Your task to perform on an android device: Open Google Maps and go to "Timeline" Image 0: 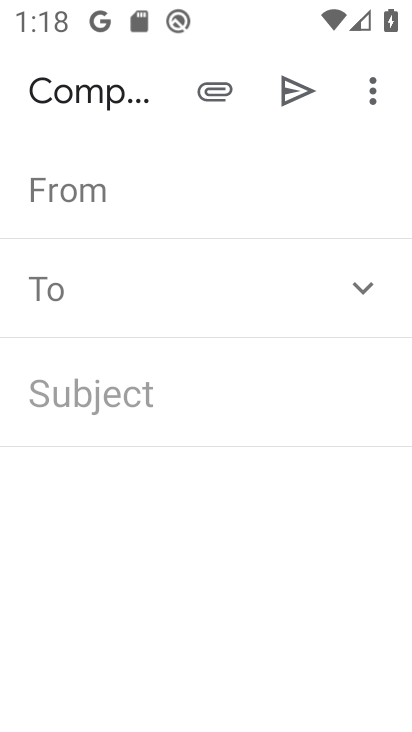
Step 0: drag from (4, 289) to (400, 320)
Your task to perform on an android device: Open Google Maps and go to "Timeline" Image 1: 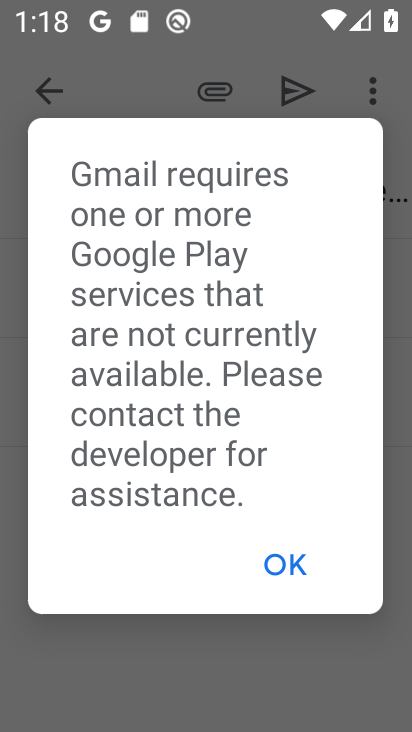
Step 1: press home button
Your task to perform on an android device: Open Google Maps and go to "Timeline" Image 2: 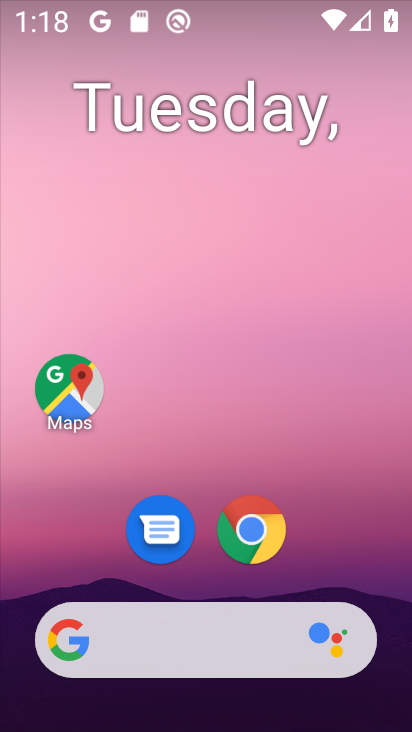
Step 2: drag from (0, 259) to (359, 261)
Your task to perform on an android device: Open Google Maps and go to "Timeline" Image 3: 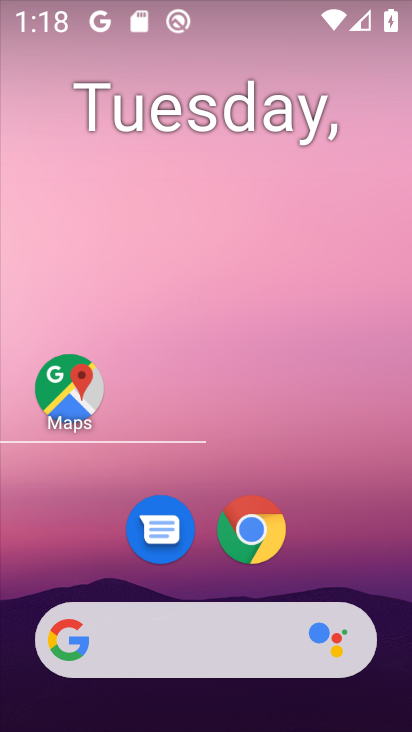
Step 3: drag from (349, 264) to (407, 254)
Your task to perform on an android device: Open Google Maps and go to "Timeline" Image 4: 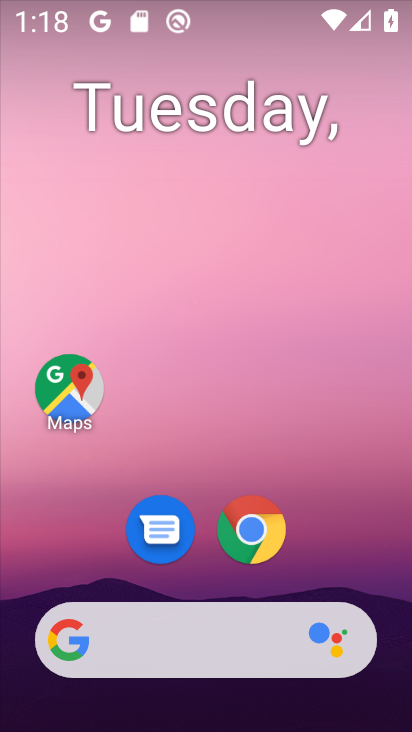
Step 4: drag from (35, 272) to (370, 451)
Your task to perform on an android device: Open Google Maps and go to "Timeline" Image 5: 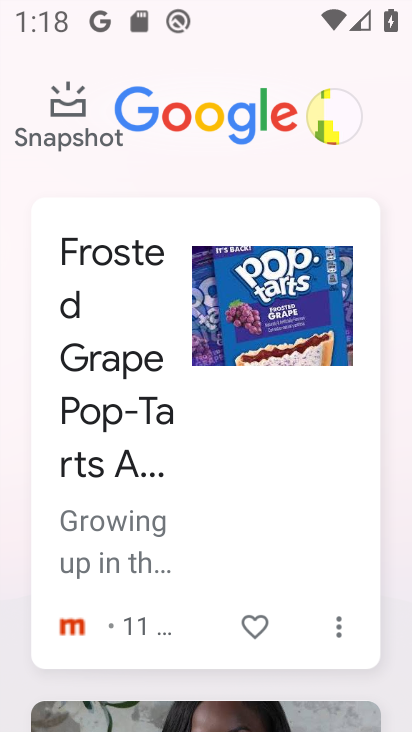
Step 5: press back button
Your task to perform on an android device: Open Google Maps and go to "Timeline" Image 6: 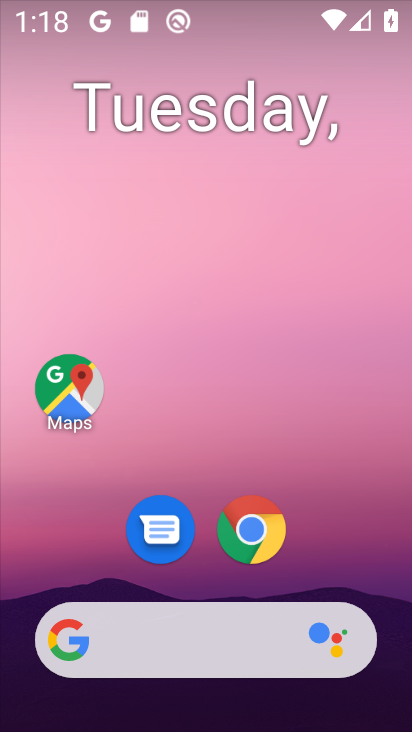
Step 6: drag from (359, 315) to (359, 17)
Your task to perform on an android device: Open Google Maps and go to "Timeline" Image 7: 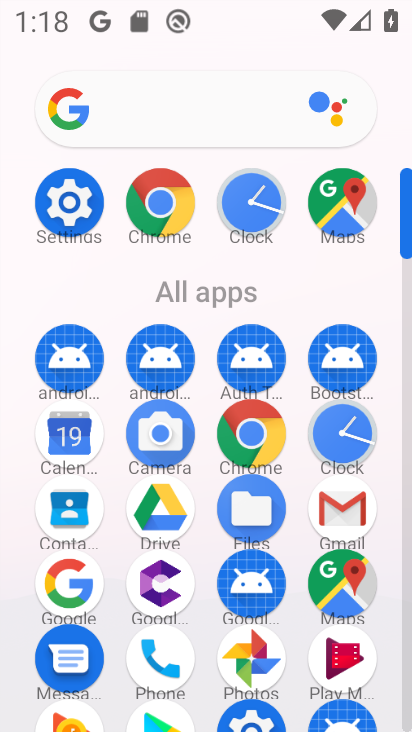
Step 7: drag from (302, 554) to (318, 271)
Your task to perform on an android device: Open Google Maps and go to "Timeline" Image 8: 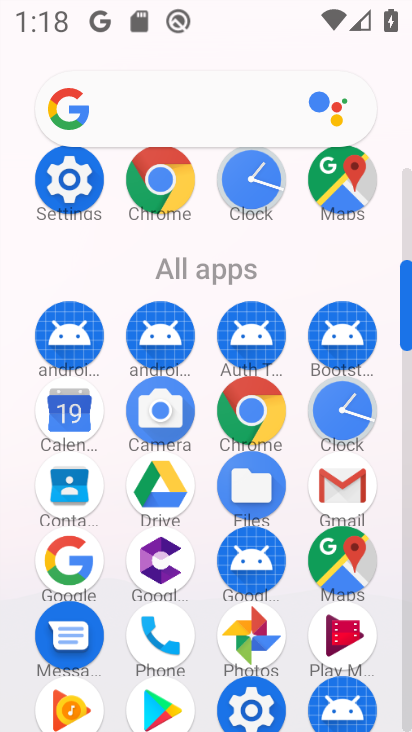
Step 8: drag from (290, 649) to (299, 365)
Your task to perform on an android device: Open Google Maps and go to "Timeline" Image 9: 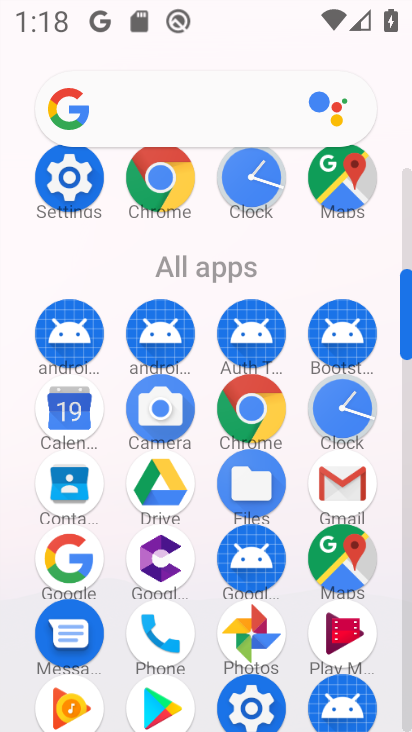
Step 9: drag from (297, 688) to (291, 236)
Your task to perform on an android device: Open Google Maps and go to "Timeline" Image 10: 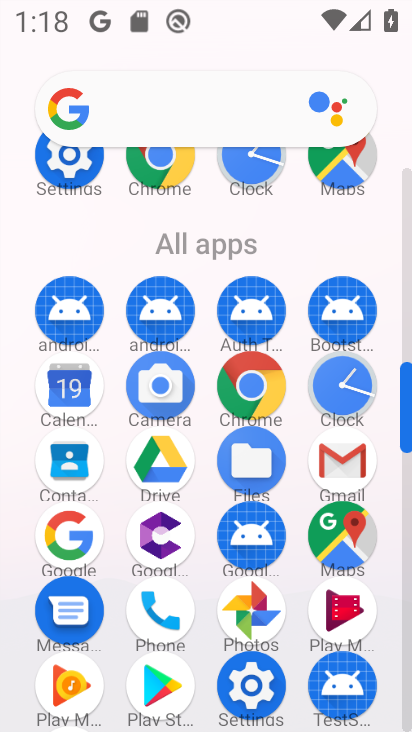
Step 10: drag from (333, 341) to (329, 281)
Your task to perform on an android device: Open Google Maps and go to "Timeline" Image 11: 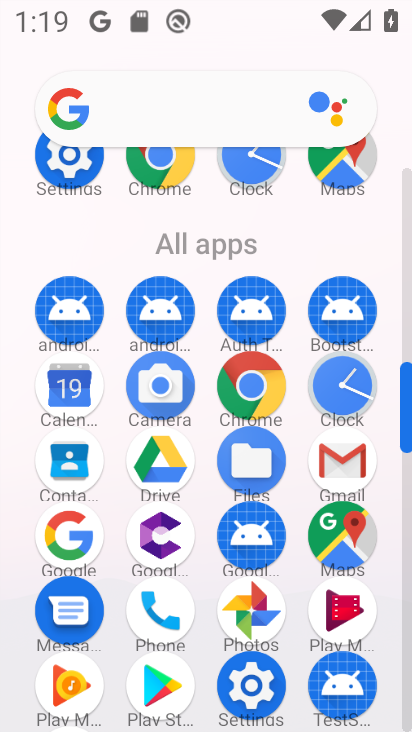
Step 11: drag from (283, 644) to (271, 339)
Your task to perform on an android device: Open Google Maps and go to "Timeline" Image 12: 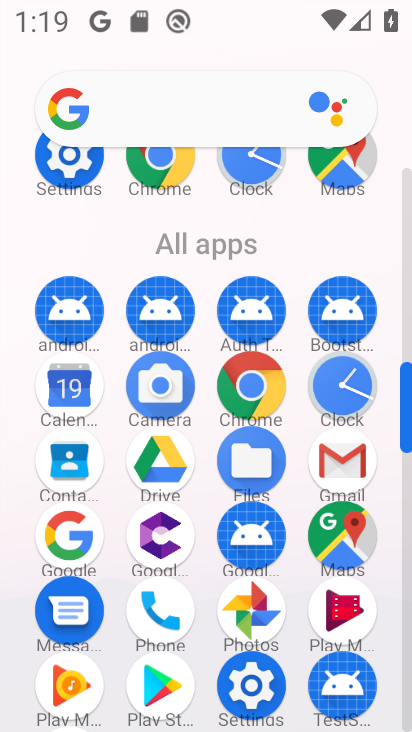
Step 12: drag from (289, 516) to (285, 315)
Your task to perform on an android device: Open Google Maps and go to "Timeline" Image 13: 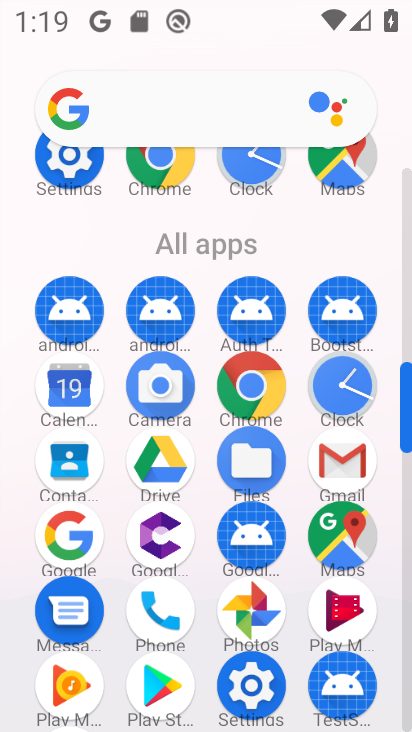
Step 13: drag from (285, 637) to (270, 150)
Your task to perform on an android device: Open Google Maps and go to "Timeline" Image 14: 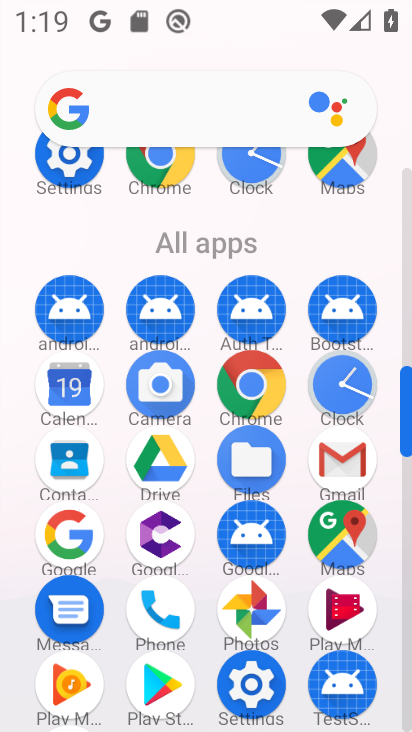
Step 14: drag from (407, 411) to (409, 224)
Your task to perform on an android device: Open Google Maps and go to "Timeline" Image 15: 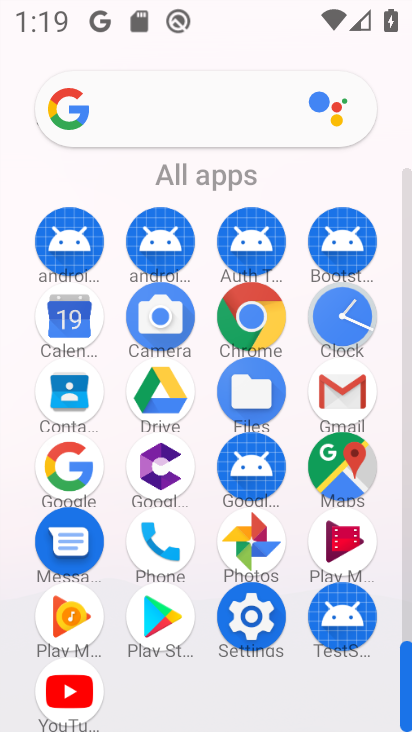
Step 15: click (66, 688)
Your task to perform on an android device: Open Google Maps and go to "Timeline" Image 16: 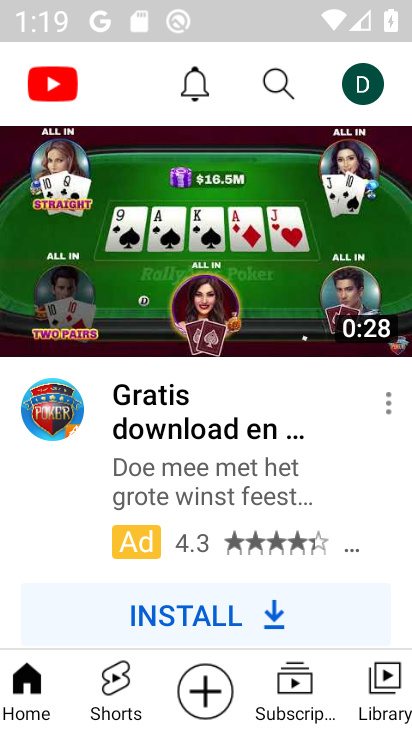
Step 16: click (373, 80)
Your task to perform on an android device: Open Google Maps and go to "Timeline" Image 17: 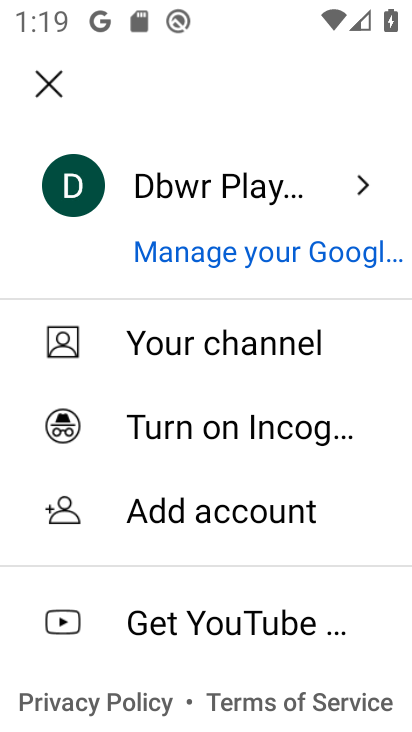
Step 17: drag from (370, 432) to (380, 307)
Your task to perform on an android device: Open Google Maps and go to "Timeline" Image 18: 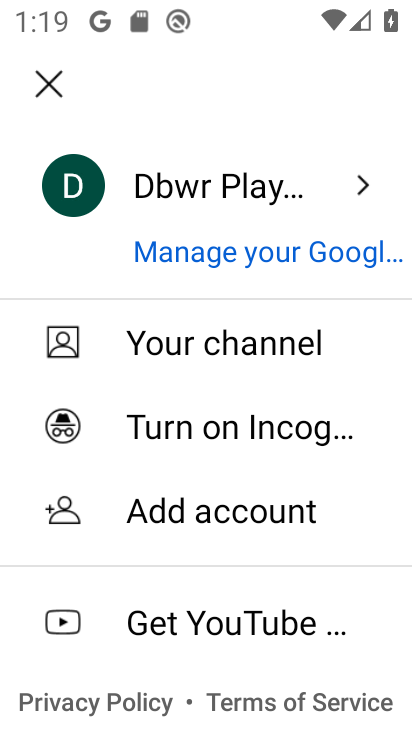
Step 18: drag from (360, 641) to (358, 432)
Your task to perform on an android device: Open Google Maps and go to "Timeline" Image 19: 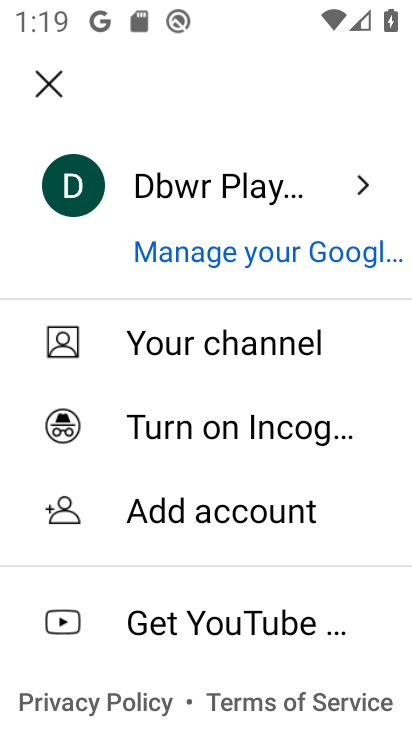
Step 19: drag from (365, 336) to (360, 532)
Your task to perform on an android device: Open Google Maps and go to "Timeline" Image 20: 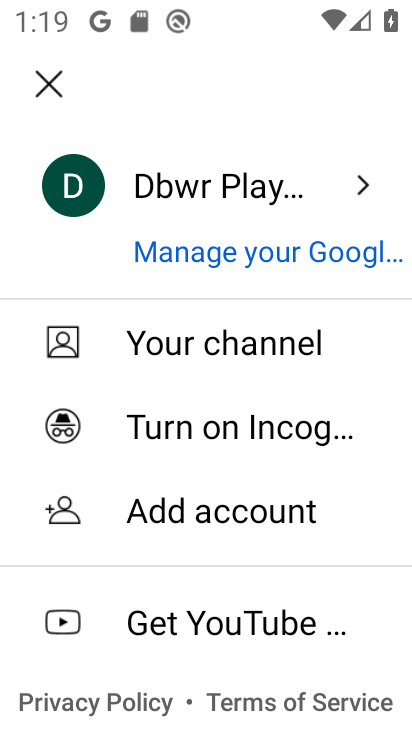
Step 20: click (48, 80)
Your task to perform on an android device: Open Google Maps and go to "Timeline" Image 21: 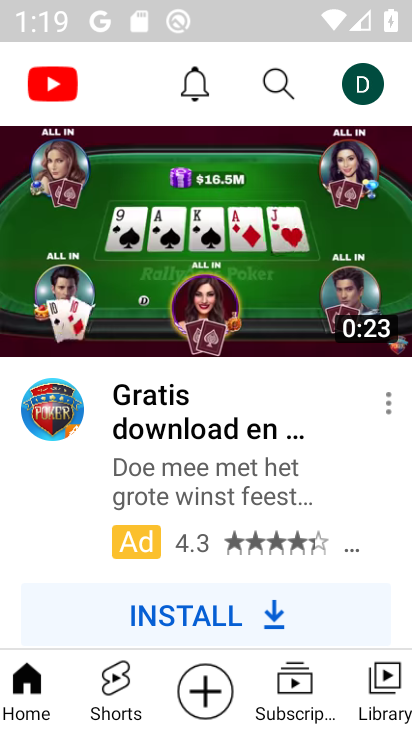
Step 21: click (40, 79)
Your task to perform on an android device: Open Google Maps and go to "Timeline" Image 22: 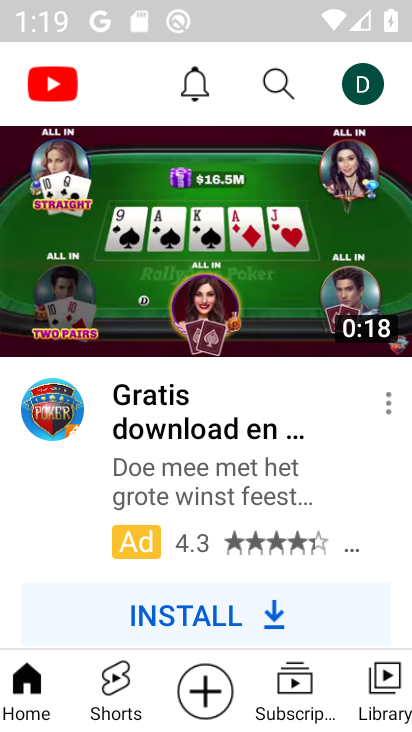
Step 22: press back button
Your task to perform on an android device: Open Google Maps and go to "Timeline" Image 23: 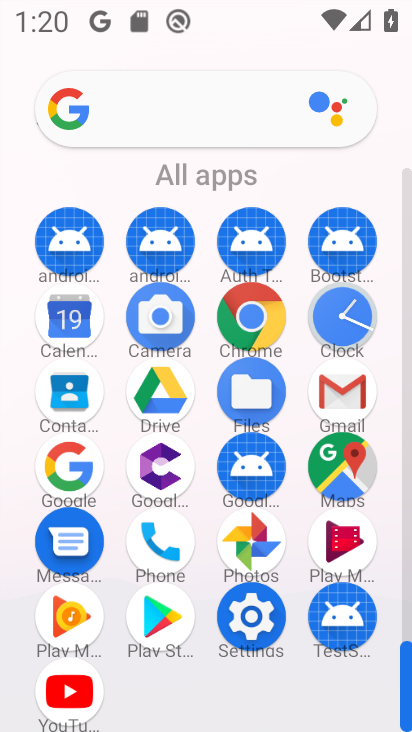
Step 23: click (357, 464)
Your task to perform on an android device: Open Google Maps and go to "Timeline" Image 24: 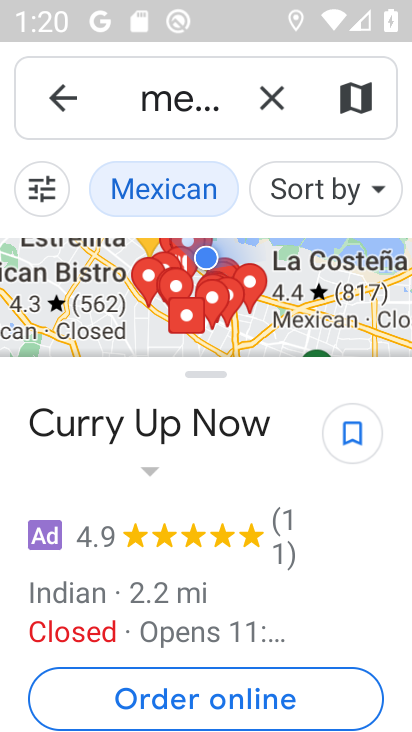
Step 24: click (275, 94)
Your task to perform on an android device: Open Google Maps and go to "Timeline" Image 25: 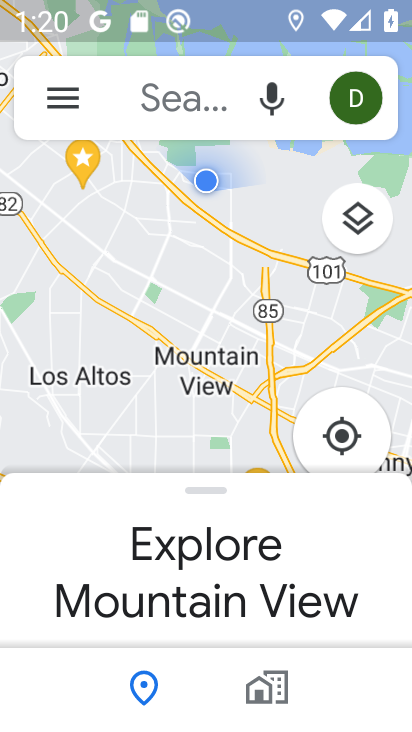
Step 25: click (53, 94)
Your task to perform on an android device: Open Google Maps and go to "Timeline" Image 26: 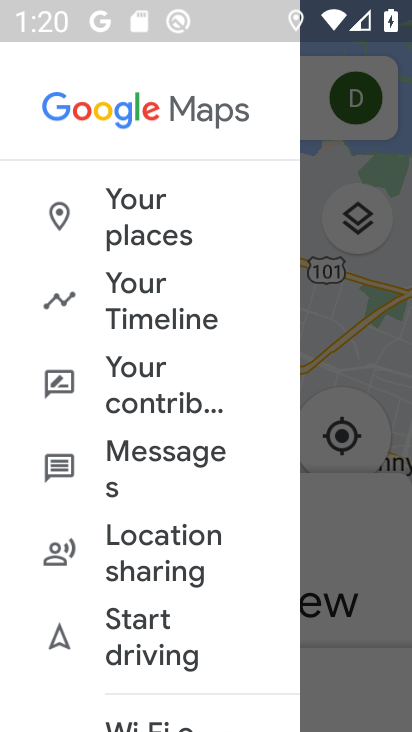
Step 26: drag from (250, 652) to (274, 218)
Your task to perform on an android device: Open Google Maps and go to "Timeline" Image 27: 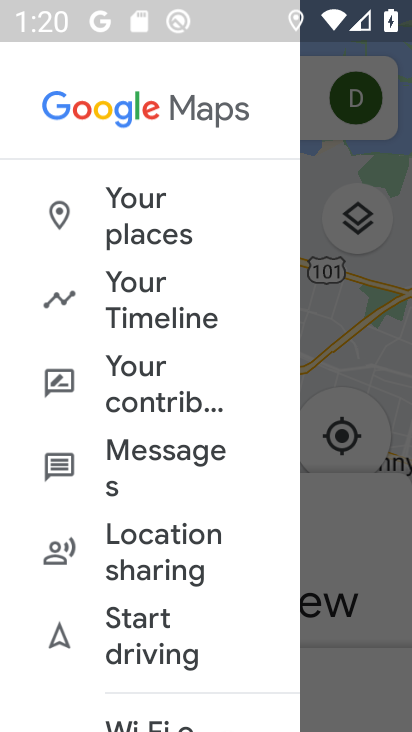
Step 27: click (262, 248)
Your task to perform on an android device: Open Google Maps and go to "Timeline" Image 28: 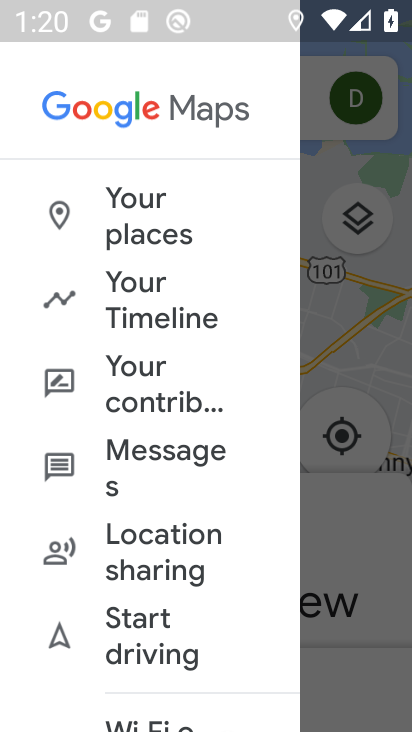
Step 28: drag from (220, 666) to (252, 204)
Your task to perform on an android device: Open Google Maps and go to "Timeline" Image 29: 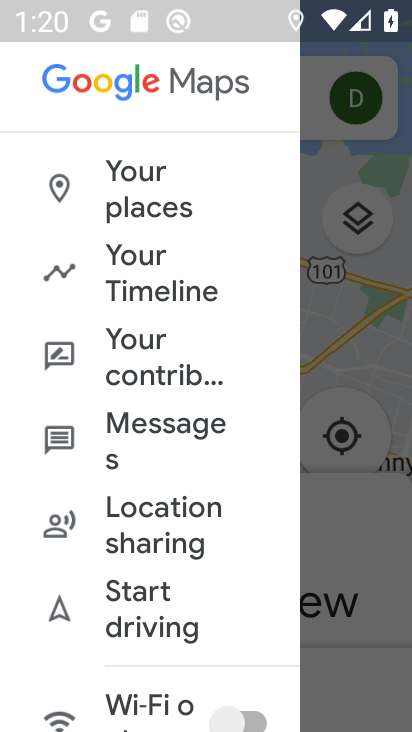
Step 29: drag from (239, 657) to (277, 228)
Your task to perform on an android device: Open Google Maps and go to "Timeline" Image 30: 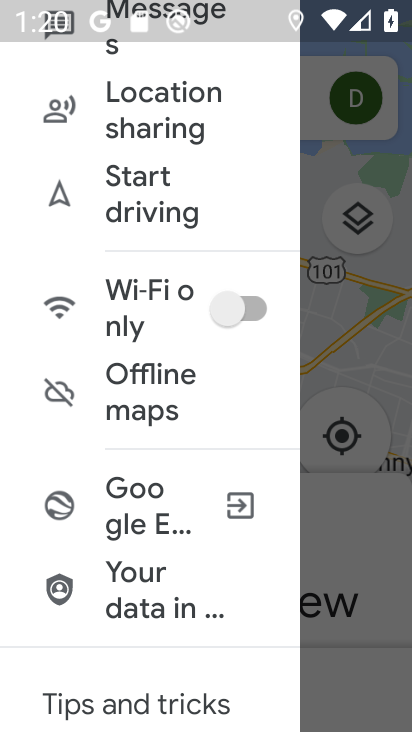
Step 30: drag from (274, 618) to (310, 308)
Your task to perform on an android device: Open Google Maps and go to "Timeline" Image 31: 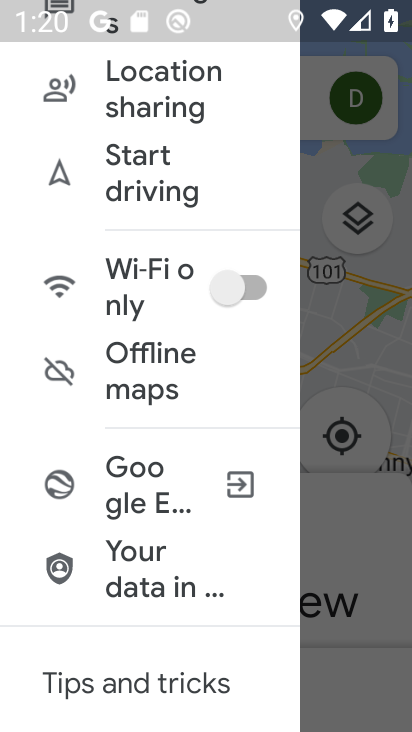
Step 31: drag from (246, 207) to (228, 551)
Your task to perform on an android device: Open Google Maps and go to "Timeline" Image 32: 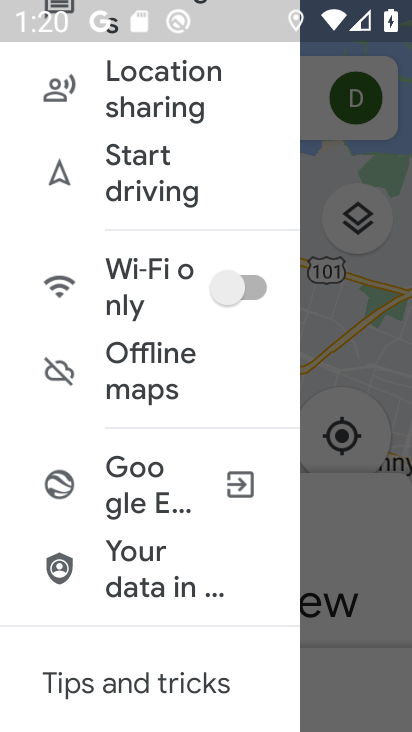
Step 32: drag from (237, 262) to (229, 518)
Your task to perform on an android device: Open Google Maps and go to "Timeline" Image 33: 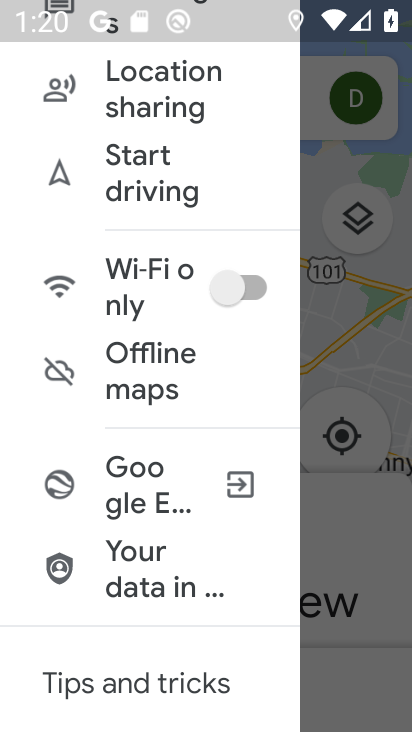
Step 33: drag from (271, 127) to (266, 570)
Your task to perform on an android device: Open Google Maps and go to "Timeline" Image 34: 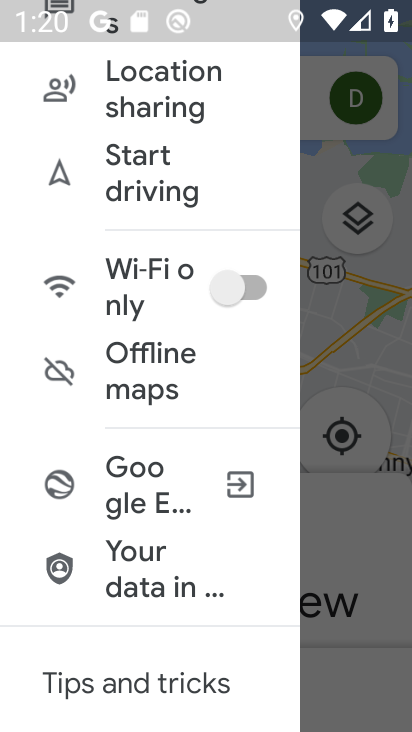
Step 34: drag from (261, 121) to (261, 689)
Your task to perform on an android device: Open Google Maps and go to "Timeline" Image 35: 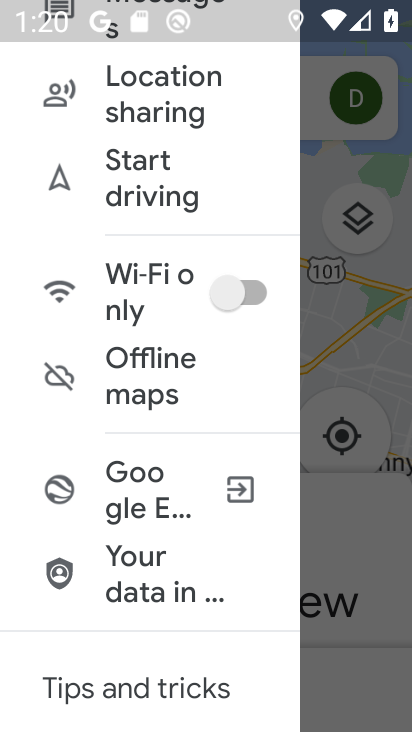
Step 35: drag from (261, 68) to (243, 431)
Your task to perform on an android device: Open Google Maps and go to "Timeline" Image 36: 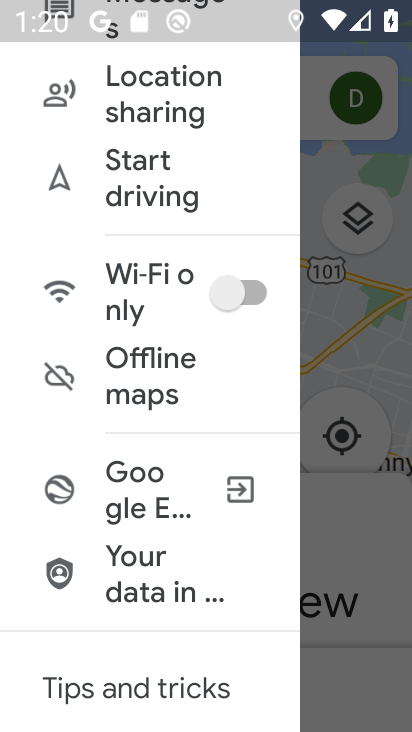
Step 36: drag from (254, 257) to (255, 406)
Your task to perform on an android device: Open Google Maps and go to "Timeline" Image 37: 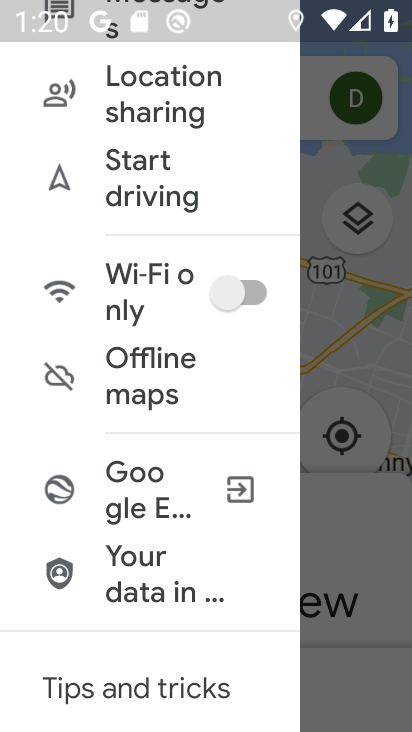
Step 37: drag from (245, 438) to (244, 487)
Your task to perform on an android device: Open Google Maps and go to "Timeline" Image 38: 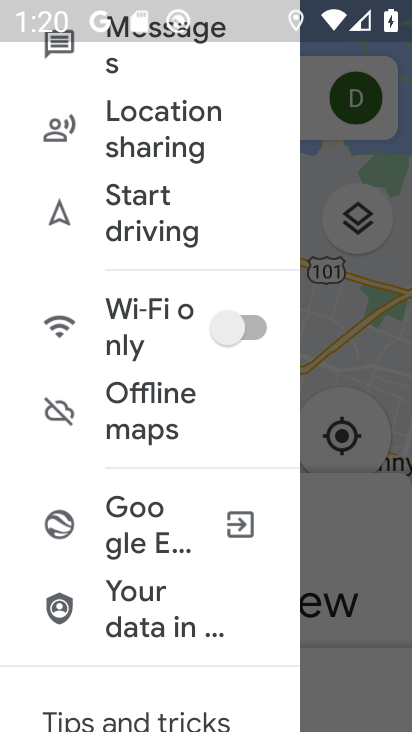
Step 38: drag from (245, 433) to (244, 558)
Your task to perform on an android device: Open Google Maps and go to "Timeline" Image 39: 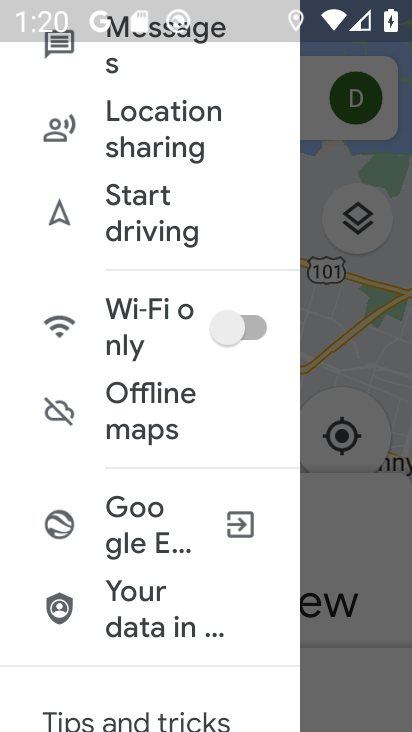
Step 39: drag from (261, 103) to (273, 518)
Your task to perform on an android device: Open Google Maps and go to "Timeline" Image 40: 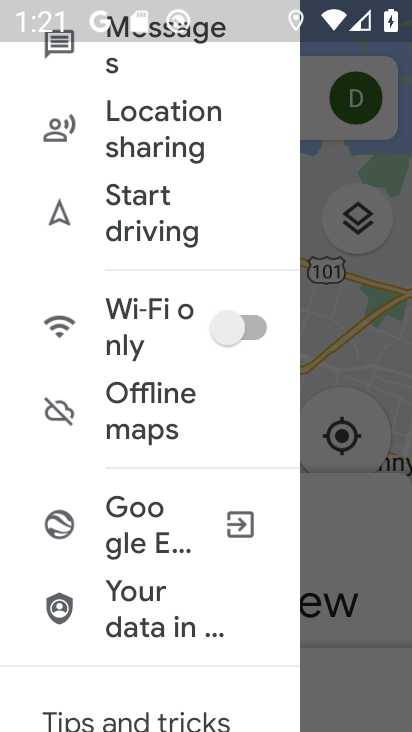
Step 40: drag from (240, 285) to (244, 483)
Your task to perform on an android device: Open Google Maps and go to "Timeline" Image 41: 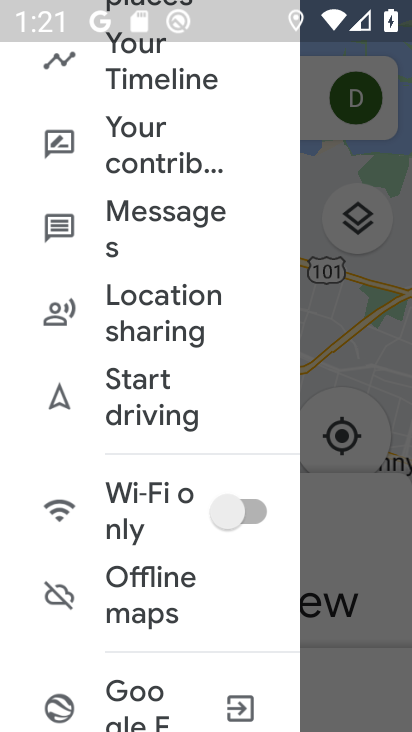
Step 41: drag from (244, 265) to (246, 495)
Your task to perform on an android device: Open Google Maps and go to "Timeline" Image 42: 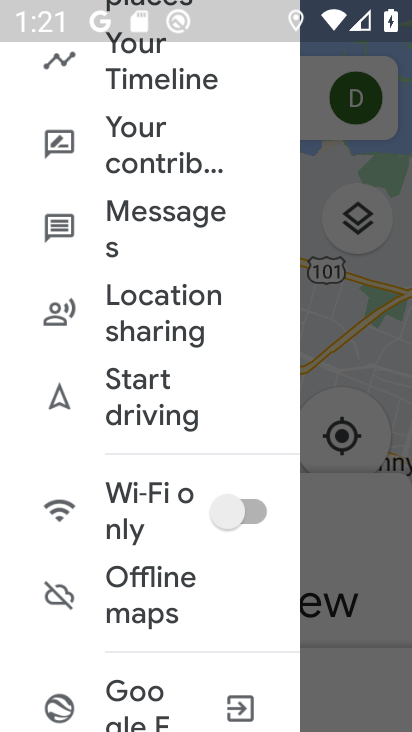
Step 42: drag from (239, 95) to (253, 606)
Your task to perform on an android device: Open Google Maps and go to "Timeline" Image 43: 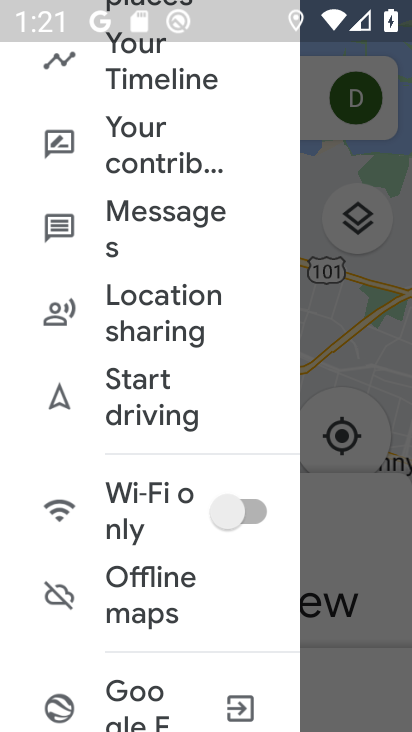
Step 43: drag from (256, 92) to (236, 645)
Your task to perform on an android device: Open Google Maps and go to "Timeline" Image 44: 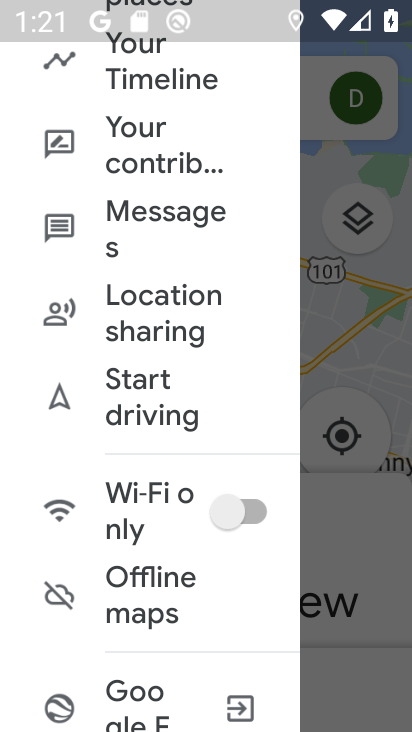
Step 44: click (135, 61)
Your task to perform on an android device: Open Google Maps and go to "Timeline" Image 45: 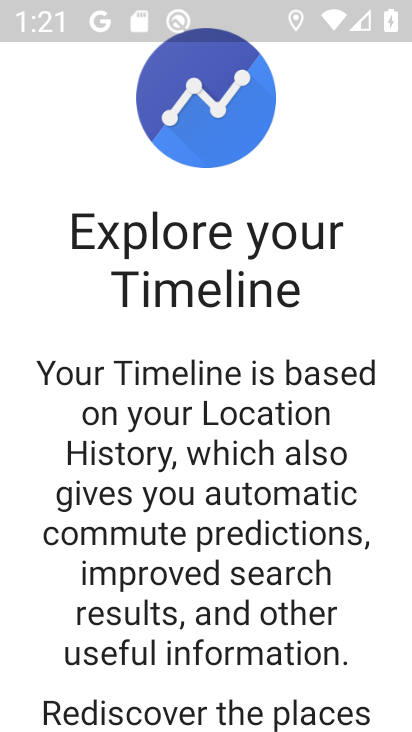
Step 45: task complete